Your task to perform on an android device: check google app version Image 0: 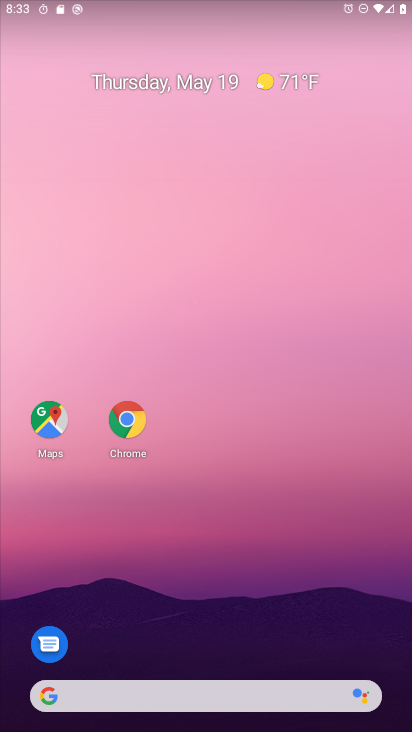
Step 0: drag from (193, 606) to (229, 366)
Your task to perform on an android device: check google app version Image 1: 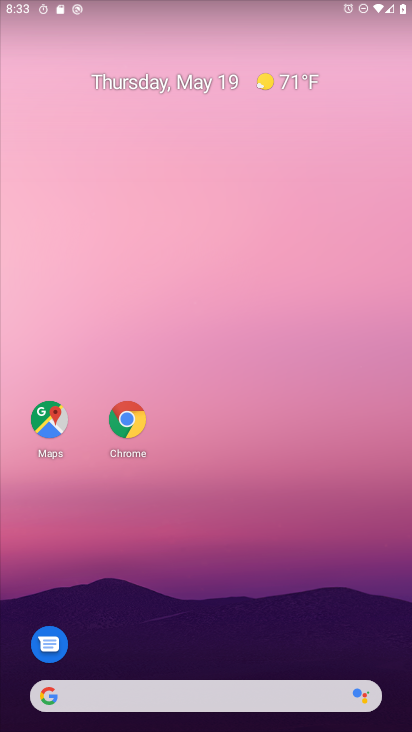
Step 1: drag from (165, 661) to (214, 257)
Your task to perform on an android device: check google app version Image 2: 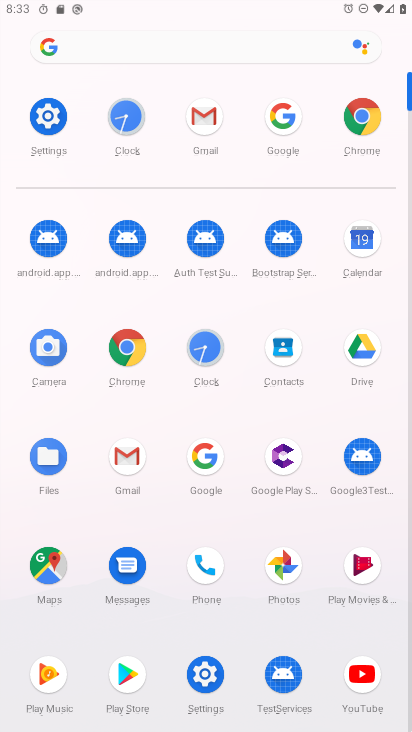
Step 2: click (205, 465)
Your task to perform on an android device: check google app version Image 3: 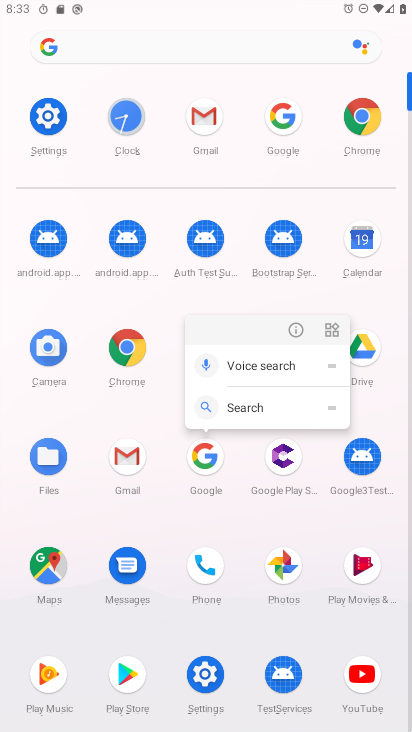
Step 3: click (296, 327)
Your task to perform on an android device: check google app version Image 4: 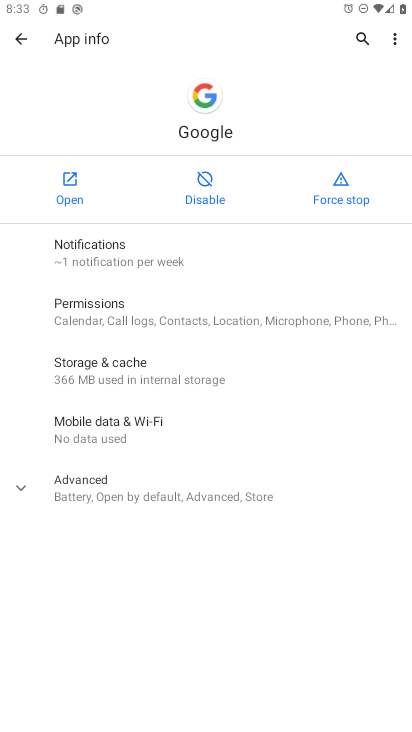
Step 4: click (111, 495)
Your task to perform on an android device: check google app version Image 5: 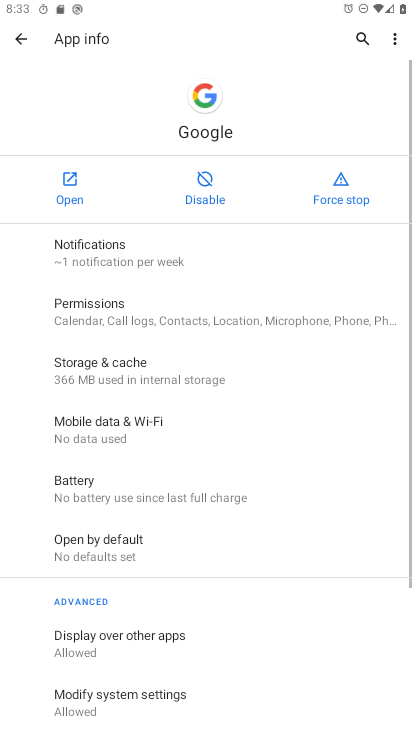
Step 5: task complete